Your task to perform on an android device: Go to Reddit.com Image 0: 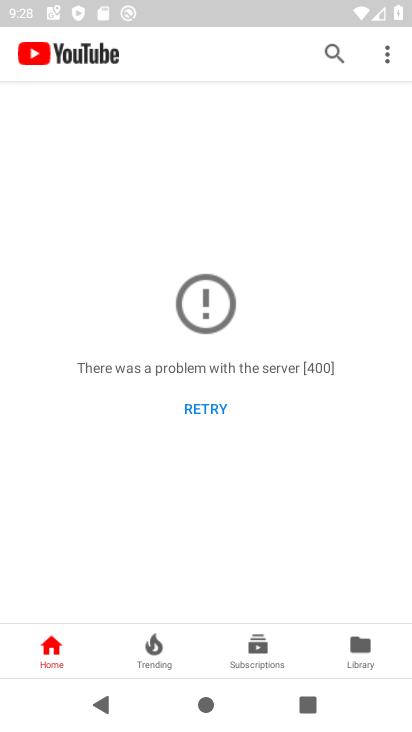
Step 0: press home button
Your task to perform on an android device: Go to Reddit.com Image 1: 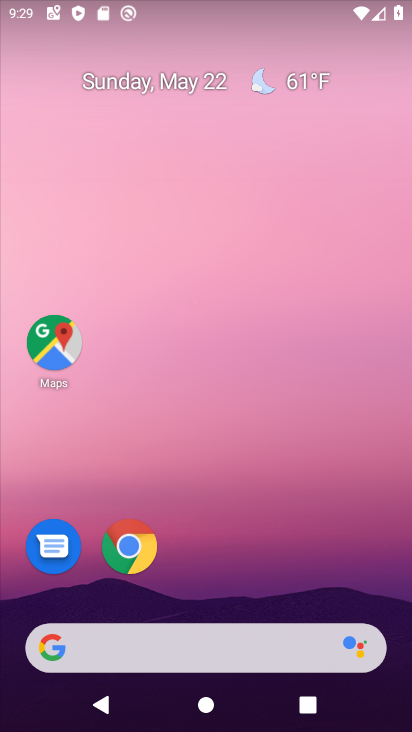
Step 1: click (131, 546)
Your task to perform on an android device: Go to Reddit.com Image 2: 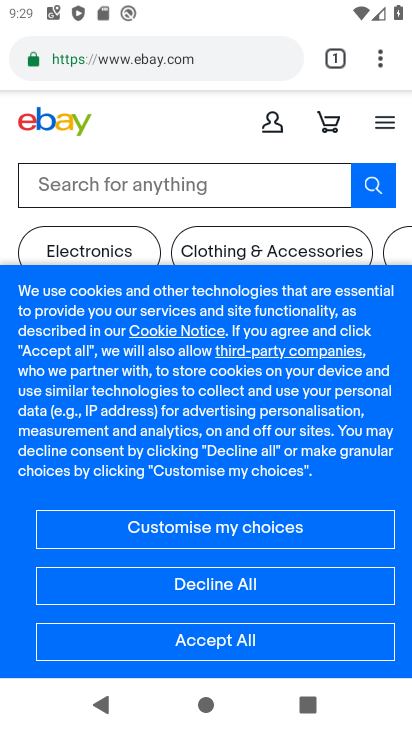
Step 2: click (286, 65)
Your task to perform on an android device: Go to Reddit.com Image 3: 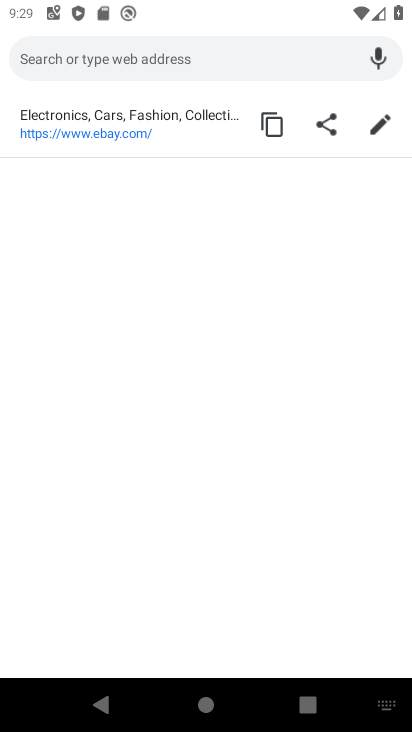
Step 3: type "Reddit.com"
Your task to perform on an android device: Go to Reddit.com Image 4: 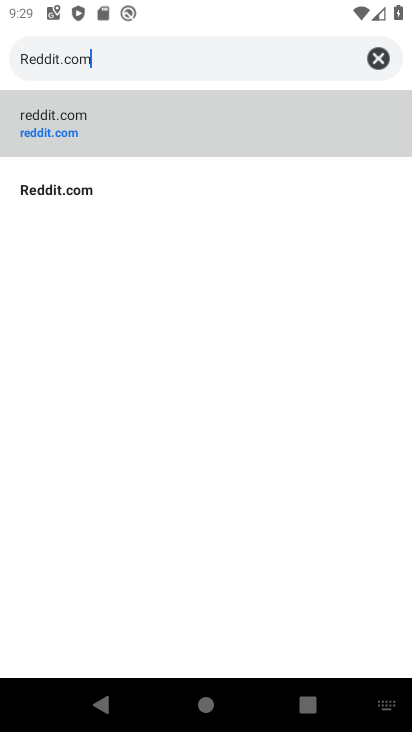
Step 4: click (42, 189)
Your task to perform on an android device: Go to Reddit.com Image 5: 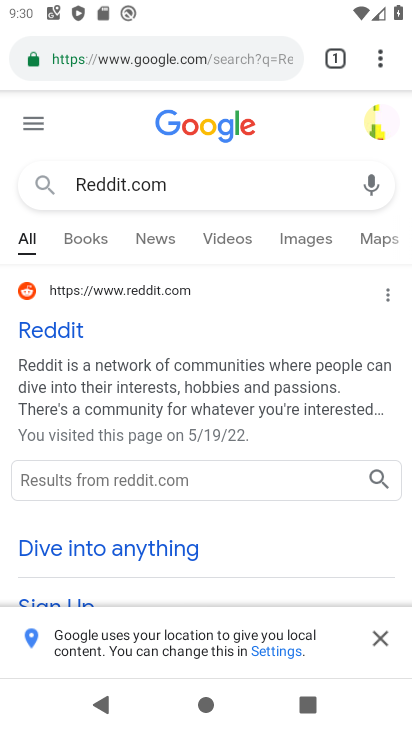
Step 5: click (68, 332)
Your task to perform on an android device: Go to Reddit.com Image 6: 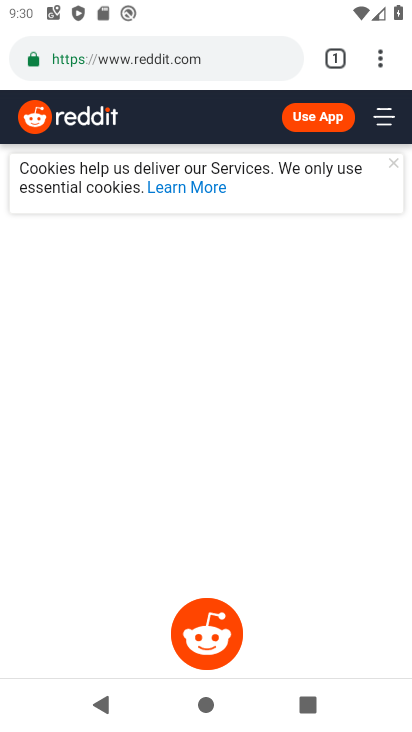
Step 6: task complete